Your task to perform on an android device: check battery use Image 0: 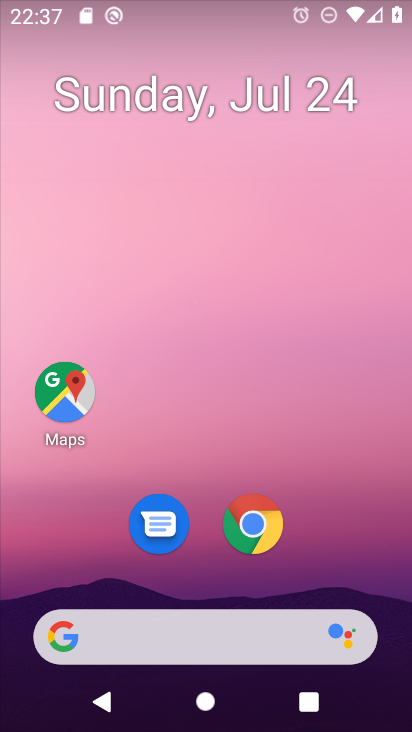
Step 0: drag from (202, 644) to (313, 15)
Your task to perform on an android device: check battery use Image 1: 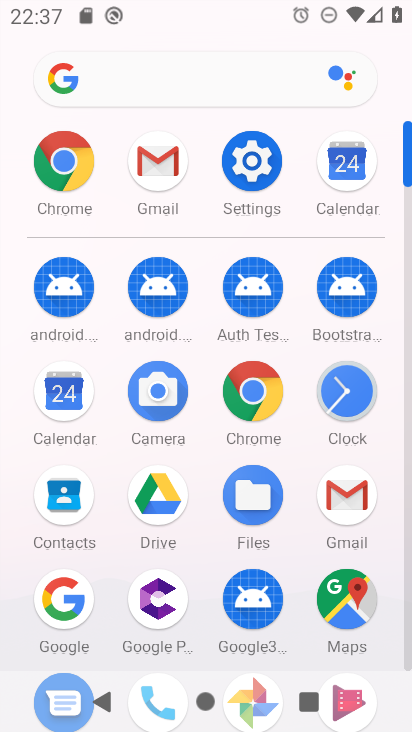
Step 1: click (263, 152)
Your task to perform on an android device: check battery use Image 2: 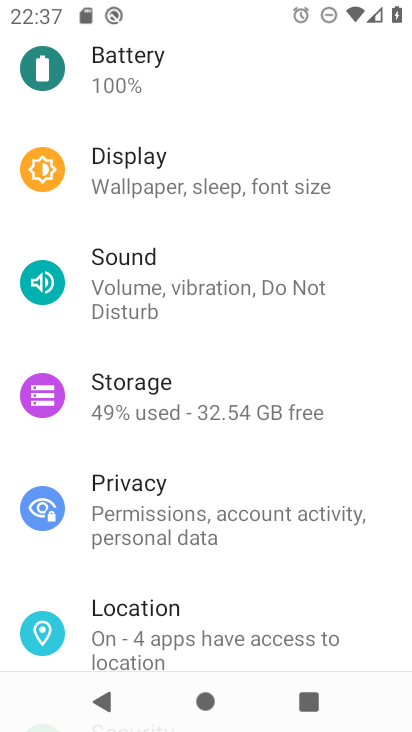
Step 2: drag from (254, 138) to (176, 574)
Your task to perform on an android device: check battery use Image 3: 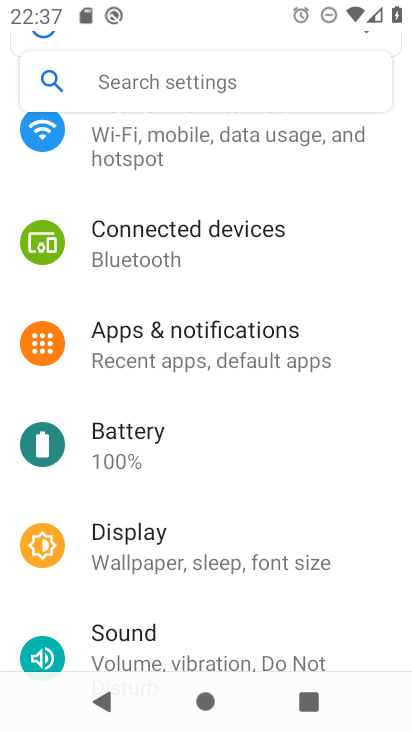
Step 3: click (134, 447)
Your task to perform on an android device: check battery use Image 4: 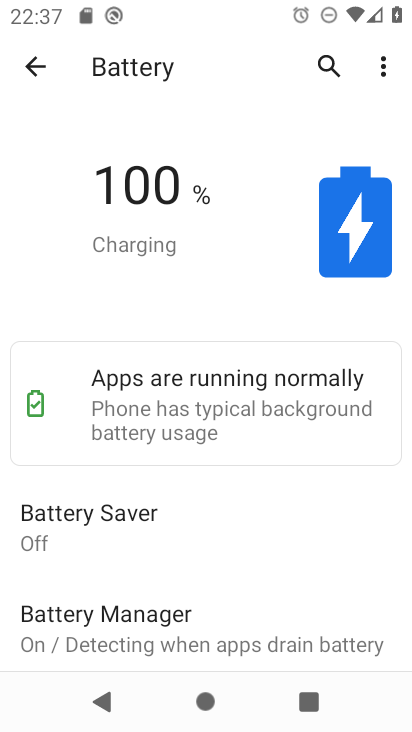
Step 4: click (385, 69)
Your task to perform on an android device: check battery use Image 5: 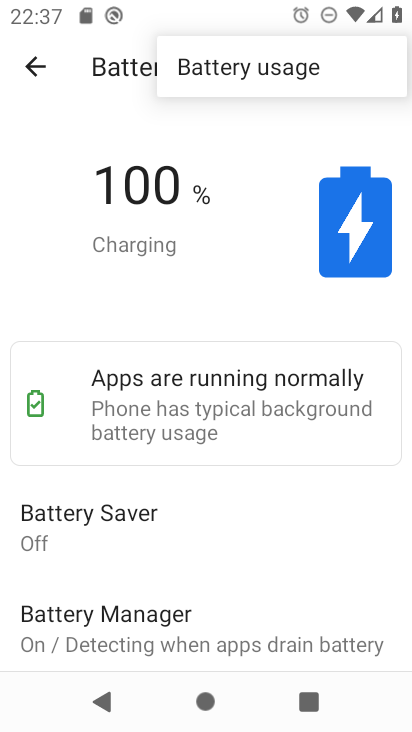
Step 5: click (291, 62)
Your task to perform on an android device: check battery use Image 6: 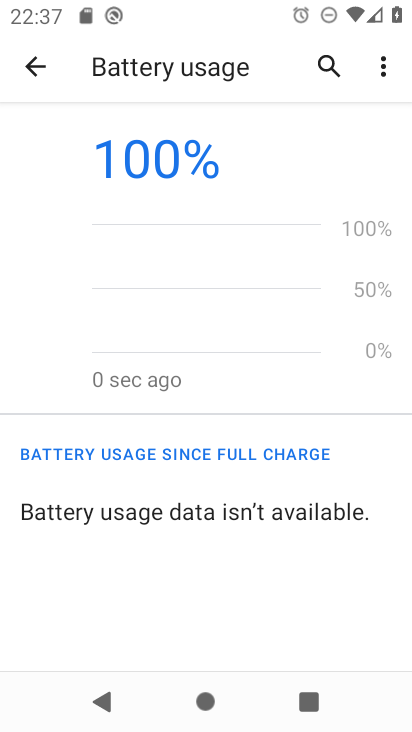
Step 6: task complete